Your task to perform on an android device: allow notifications from all sites in the chrome app Image 0: 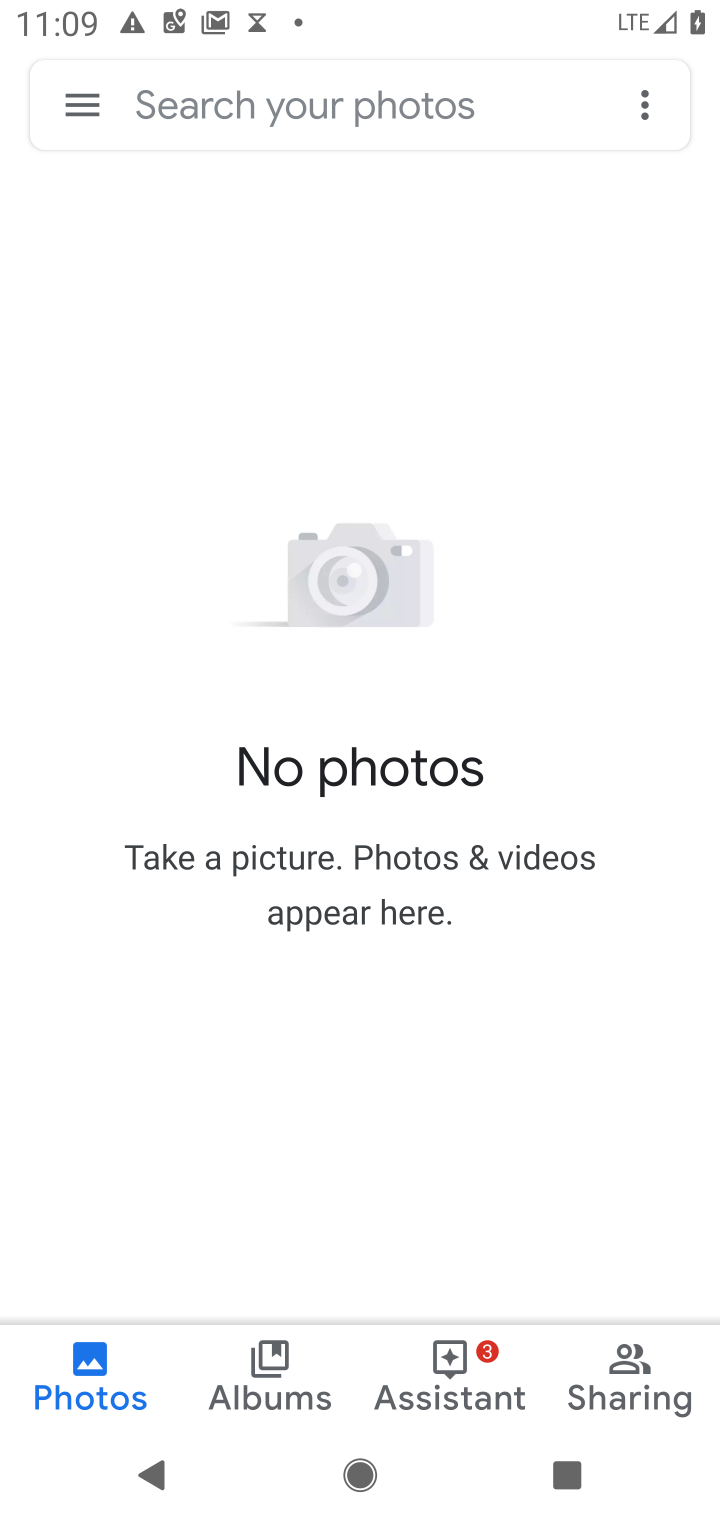
Step 0: press home button
Your task to perform on an android device: allow notifications from all sites in the chrome app Image 1: 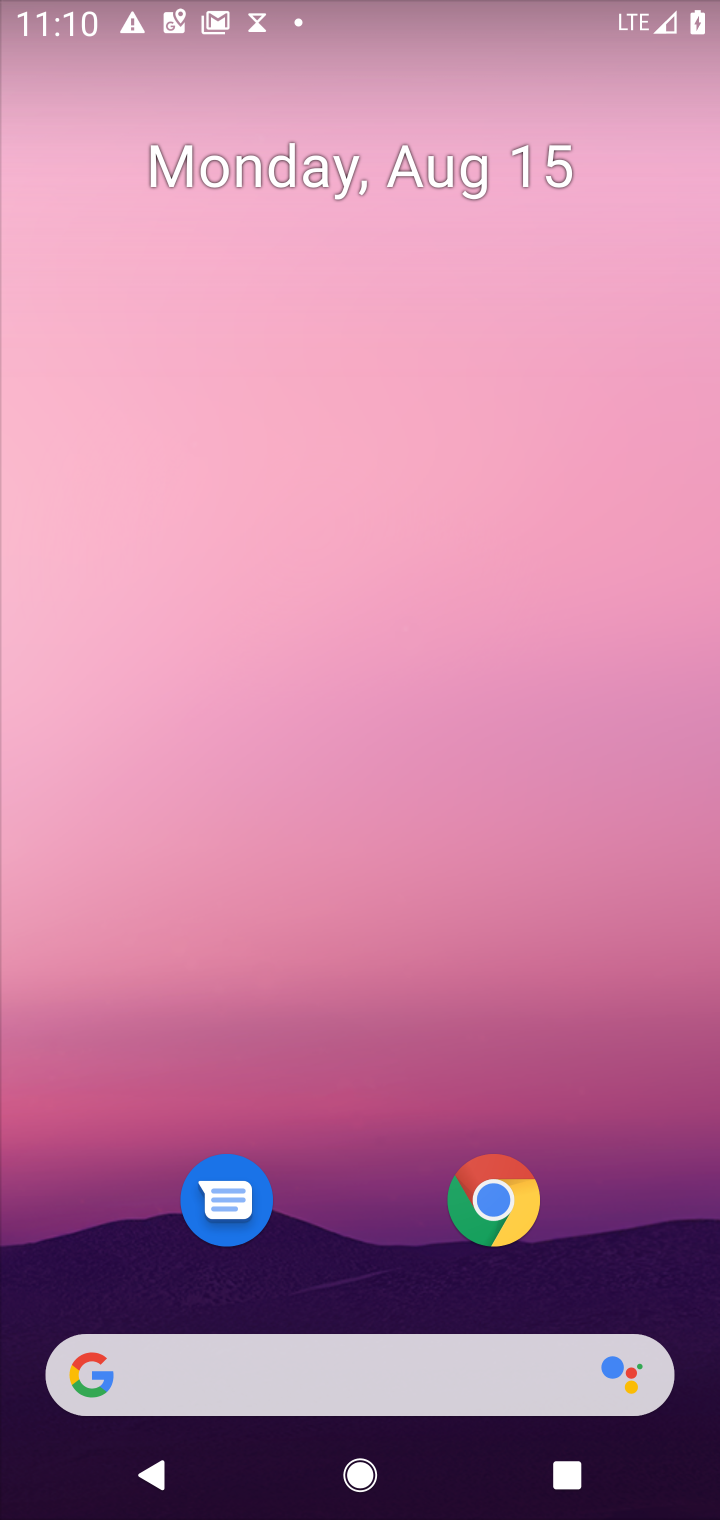
Step 1: click (460, 1194)
Your task to perform on an android device: allow notifications from all sites in the chrome app Image 2: 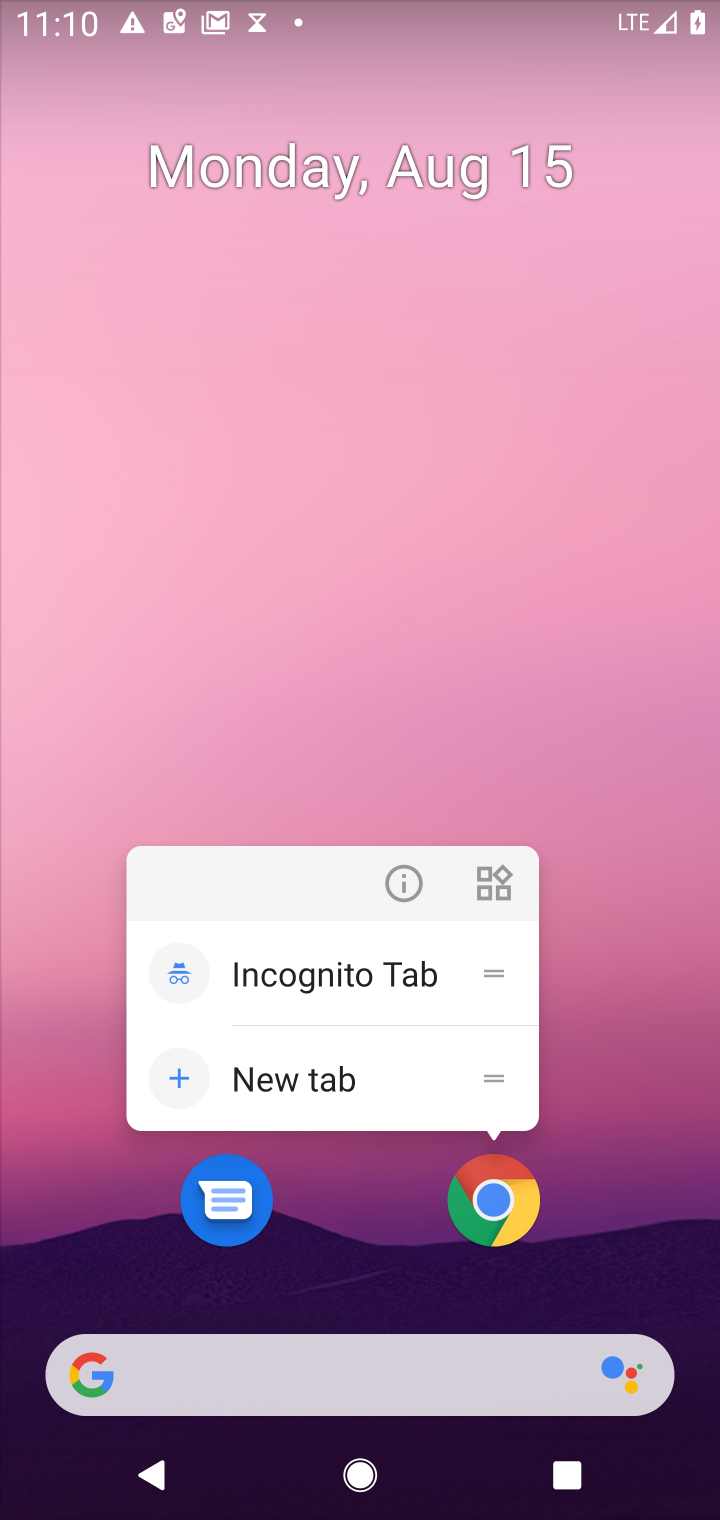
Step 2: click (460, 1194)
Your task to perform on an android device: allow notifications from all sites in the chrome app Image 3: 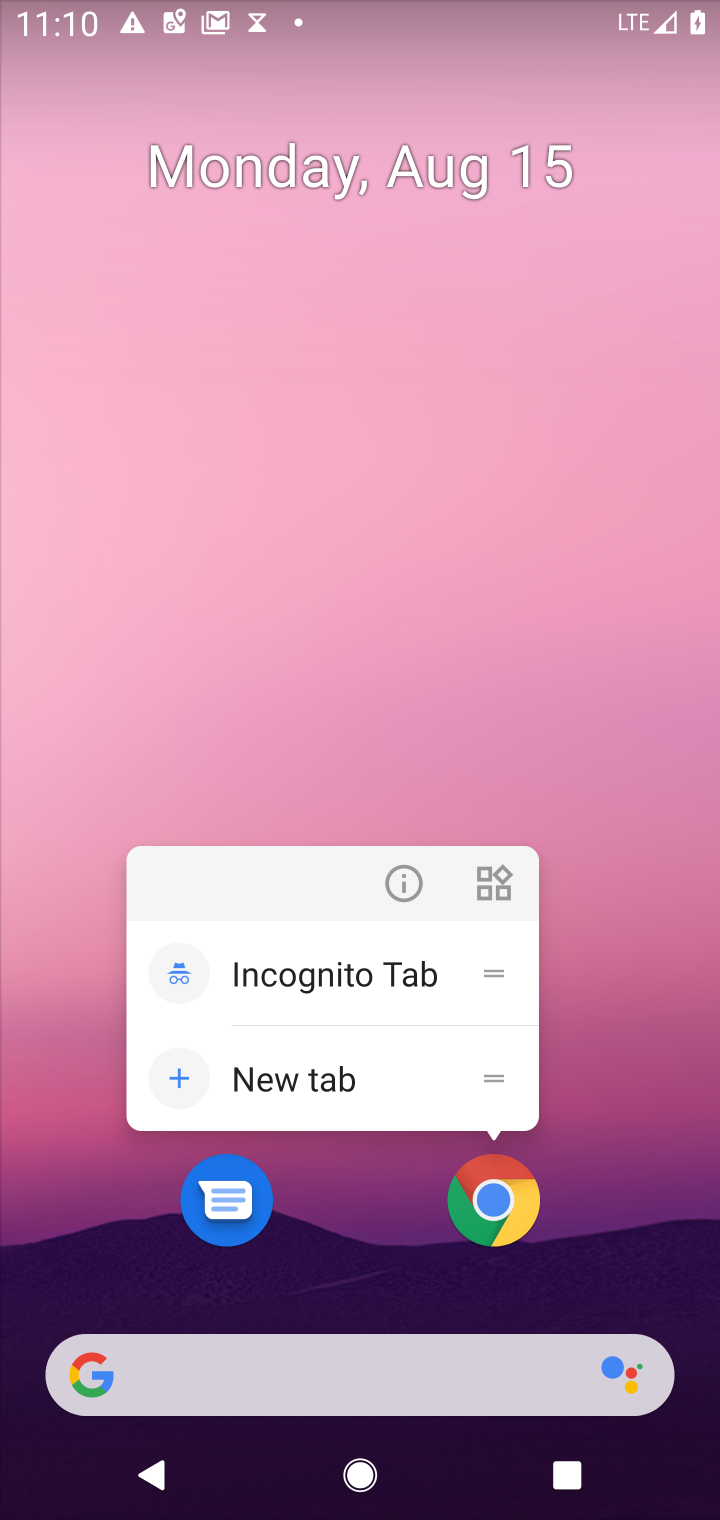
Step 3: click (486, 1215)
Your task to perform on an android device: allow notifications from all sites in the chrome app Image 4: 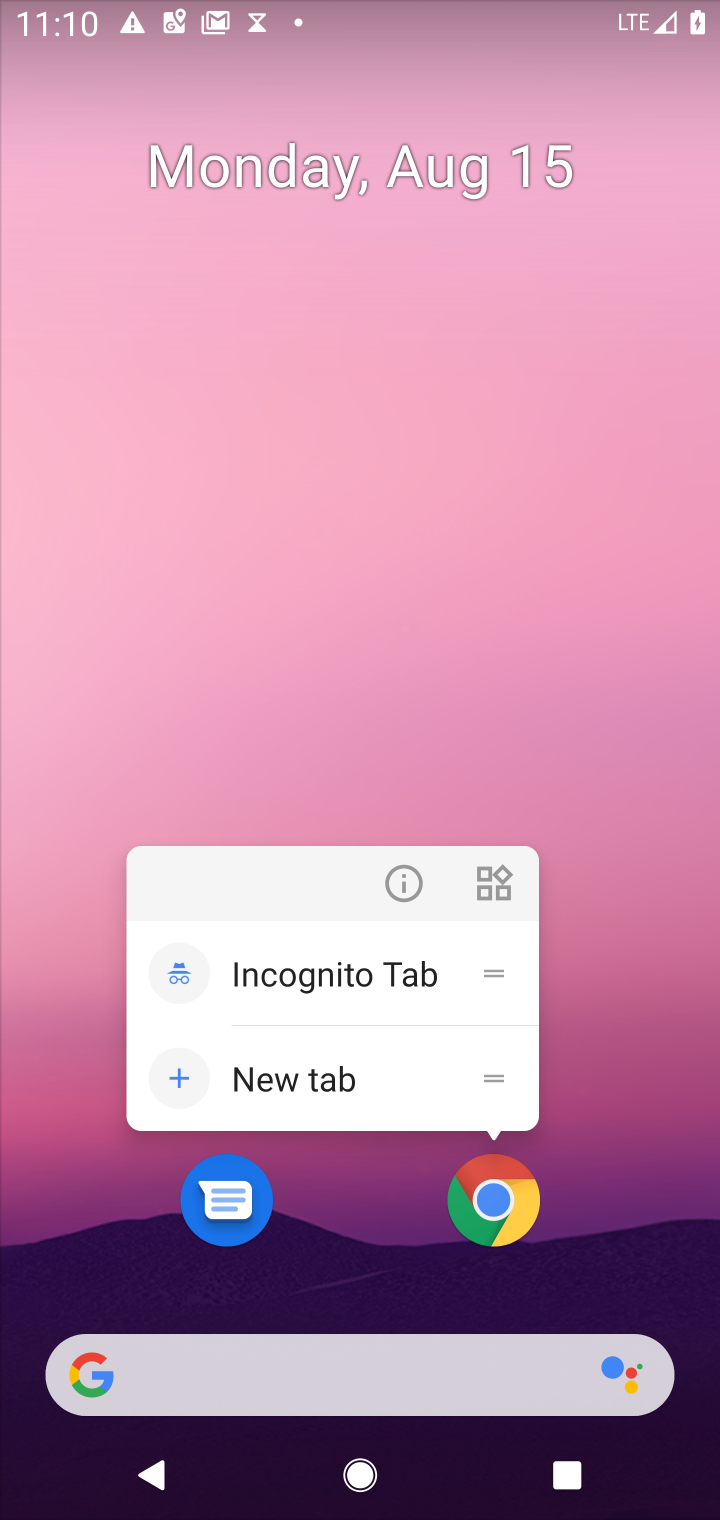
Step 4: click (486, 1215)
Your task to perform on an android device: allow notifications from all sites in the chrome app Image 5: 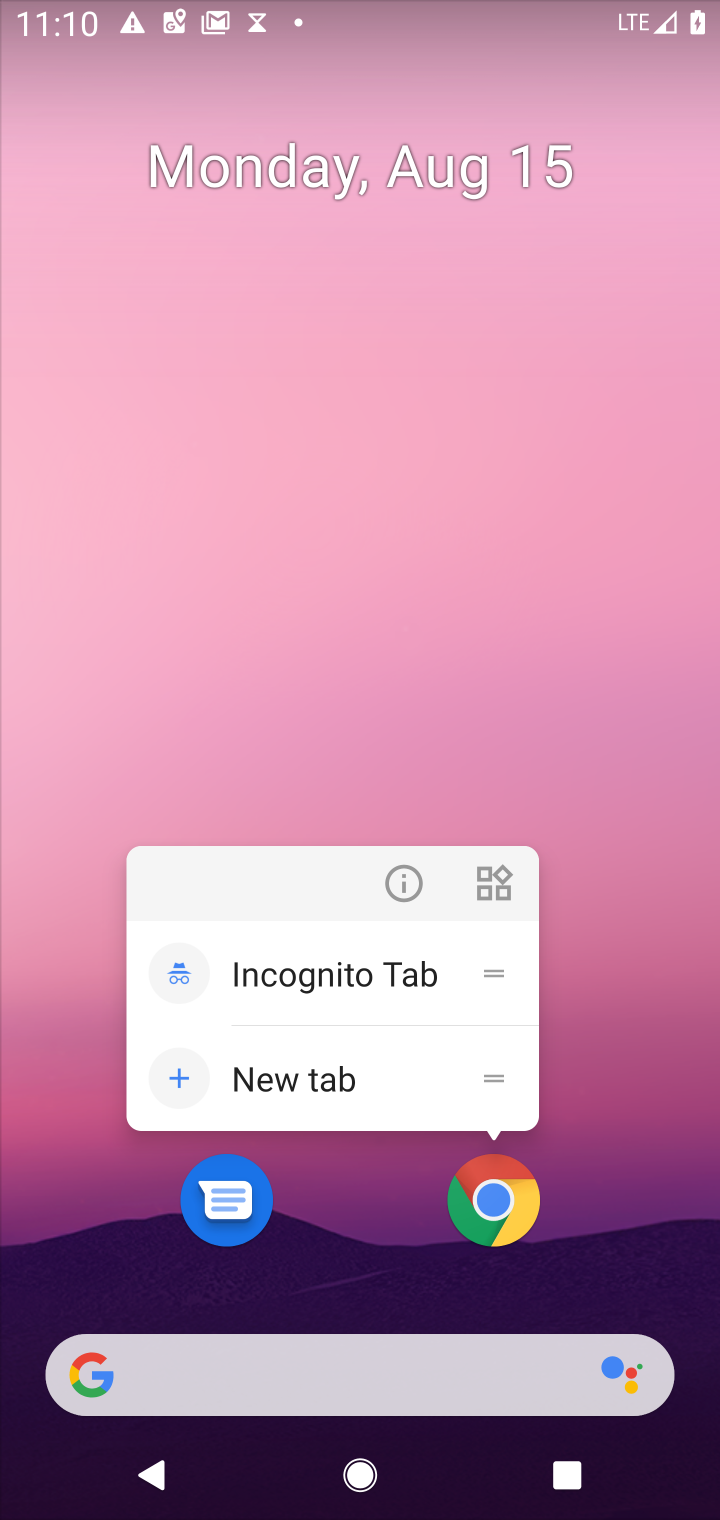
Step 5: click (486, 1215)
Your task to perform on an android device: allow notifications from all sites in the chrome app Image 6: 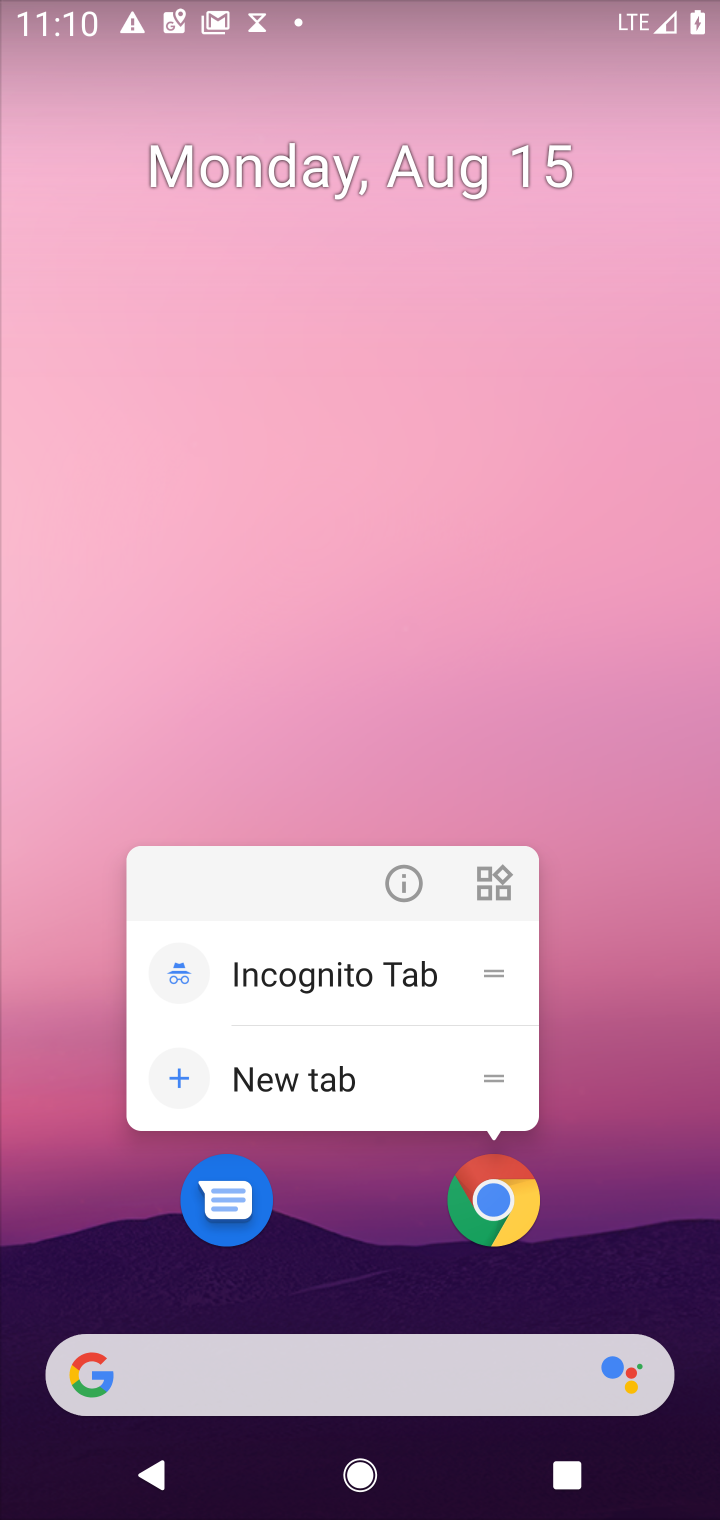
Step 6: click (504, 1215)
Your task to perform on an android device: allow notifications from all sites in the chrome app Image 7: 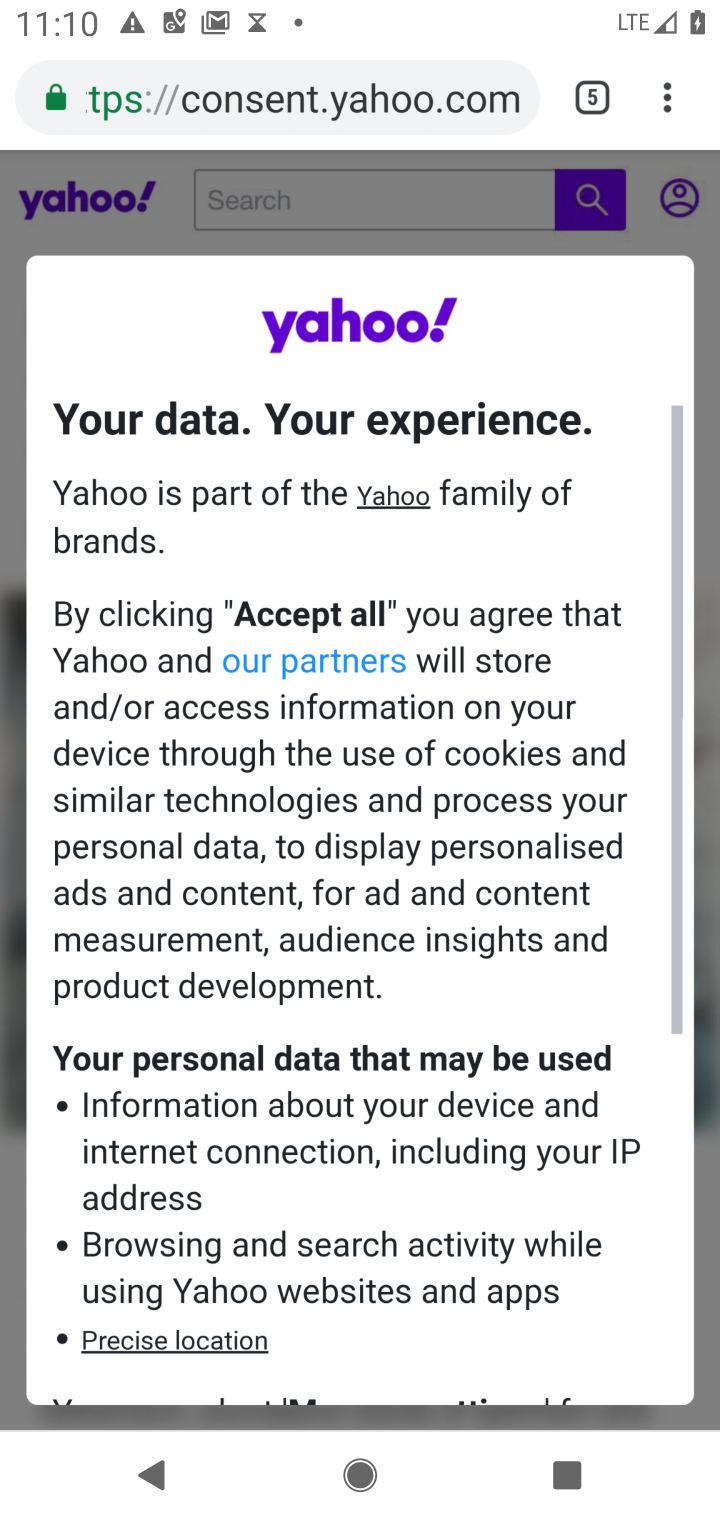
Step 7: click (675, 103)
Your task to perform on an android device: allow notifications from all sites in the chrome app Image 8: 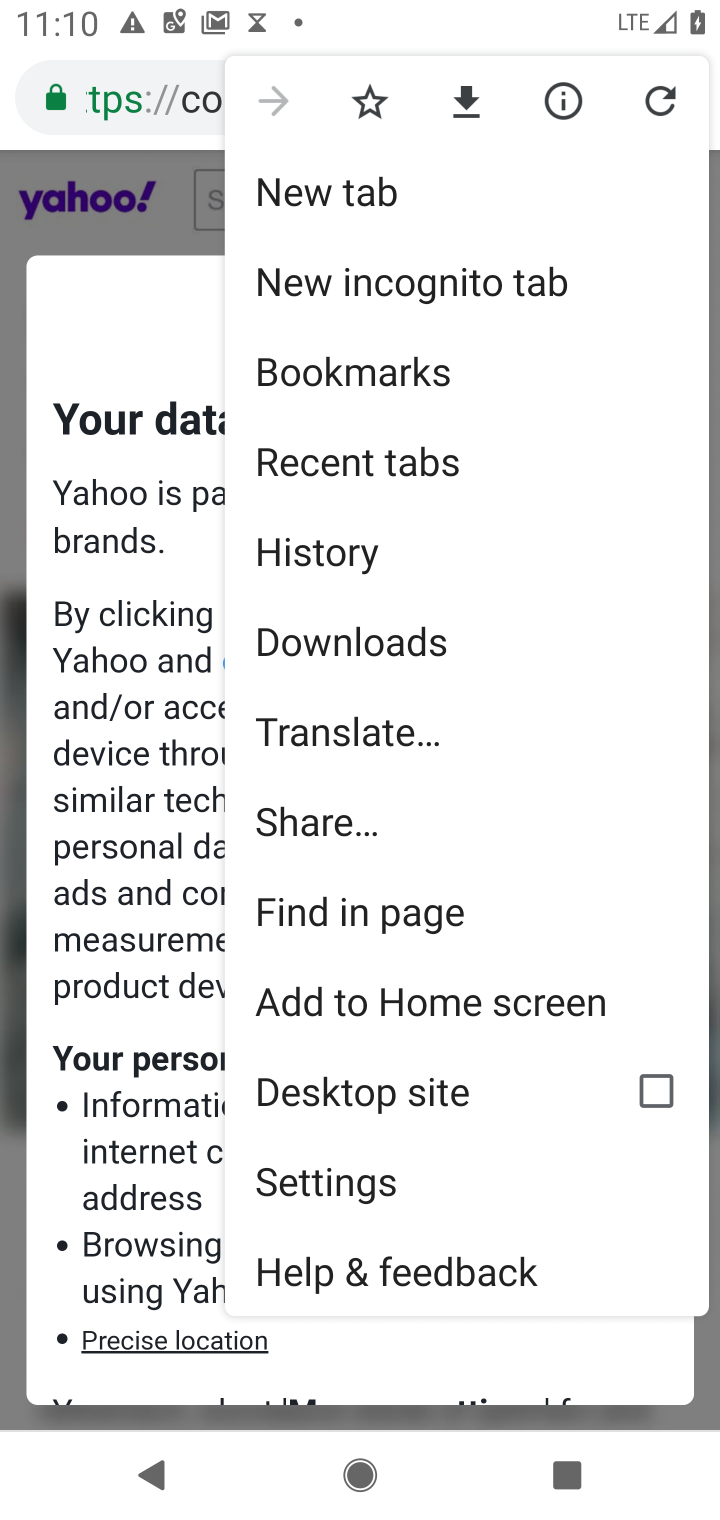
Step 8: click (347, 1175)
Your task to perform on an android device: allow notifications from all sites in the chrome app Image 9: 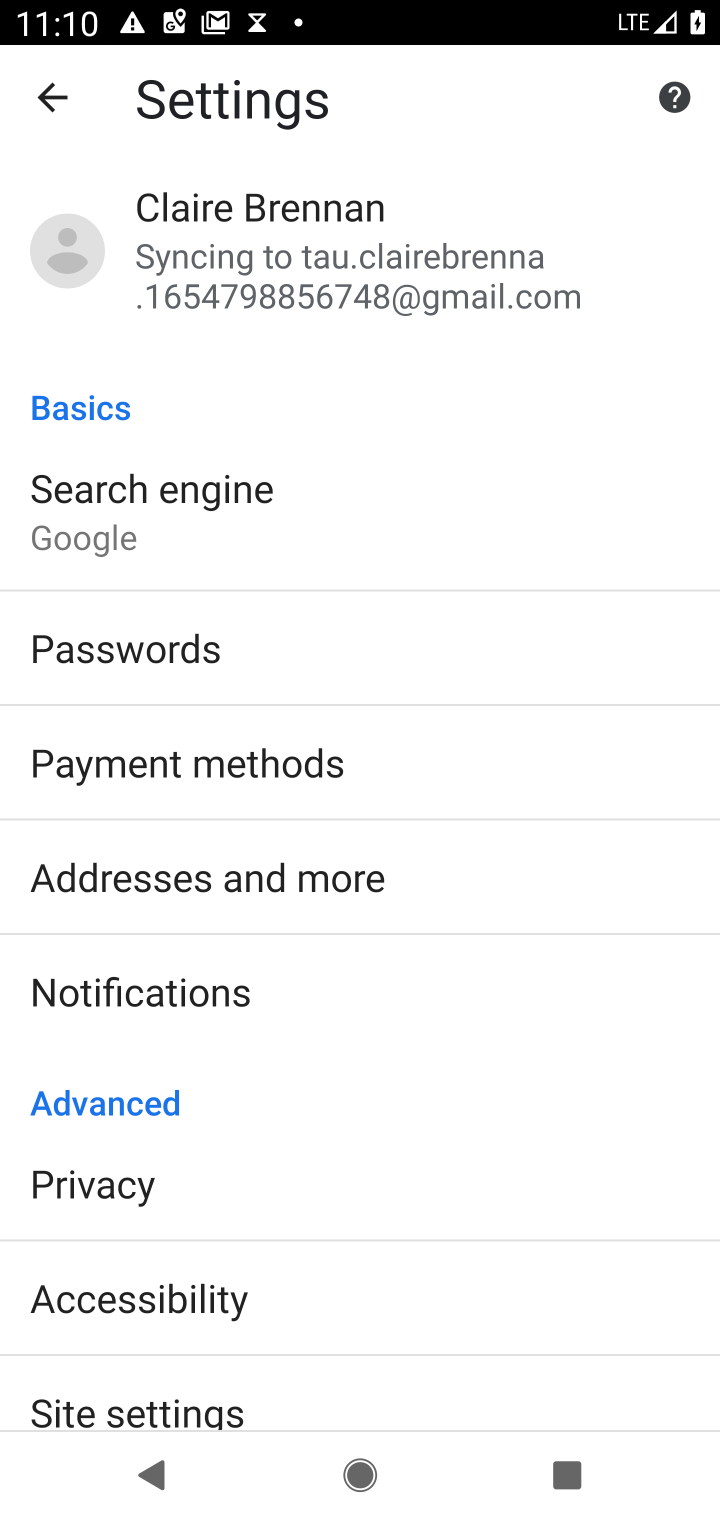
Step 9: drag from (318, 1300) to (357, 610)
Your task to perform on an android device: allow notifications from all sites in the chrome app Image 10: 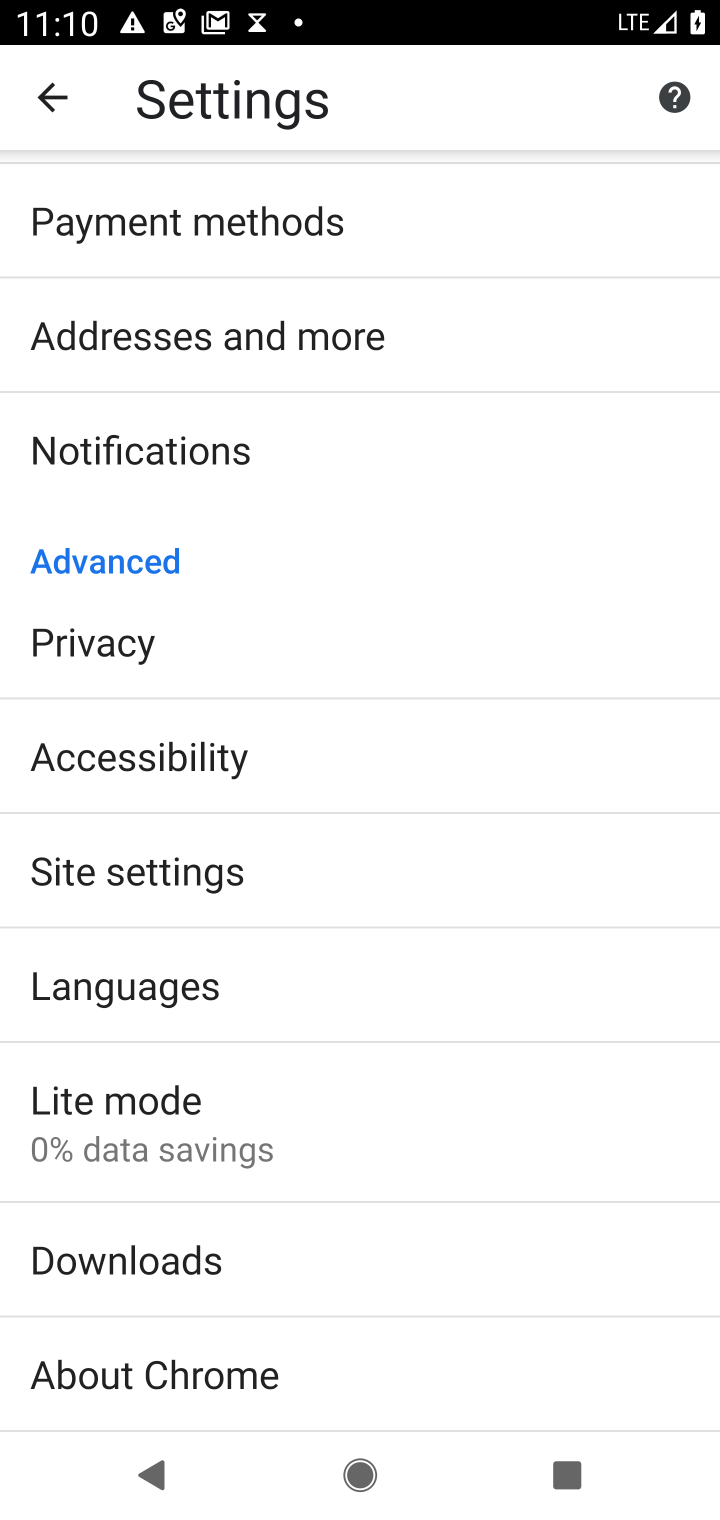
Step 10: click (213, 877)
Your task to perform on an android device: allow notifications from all sites in the chrome app Image 11: 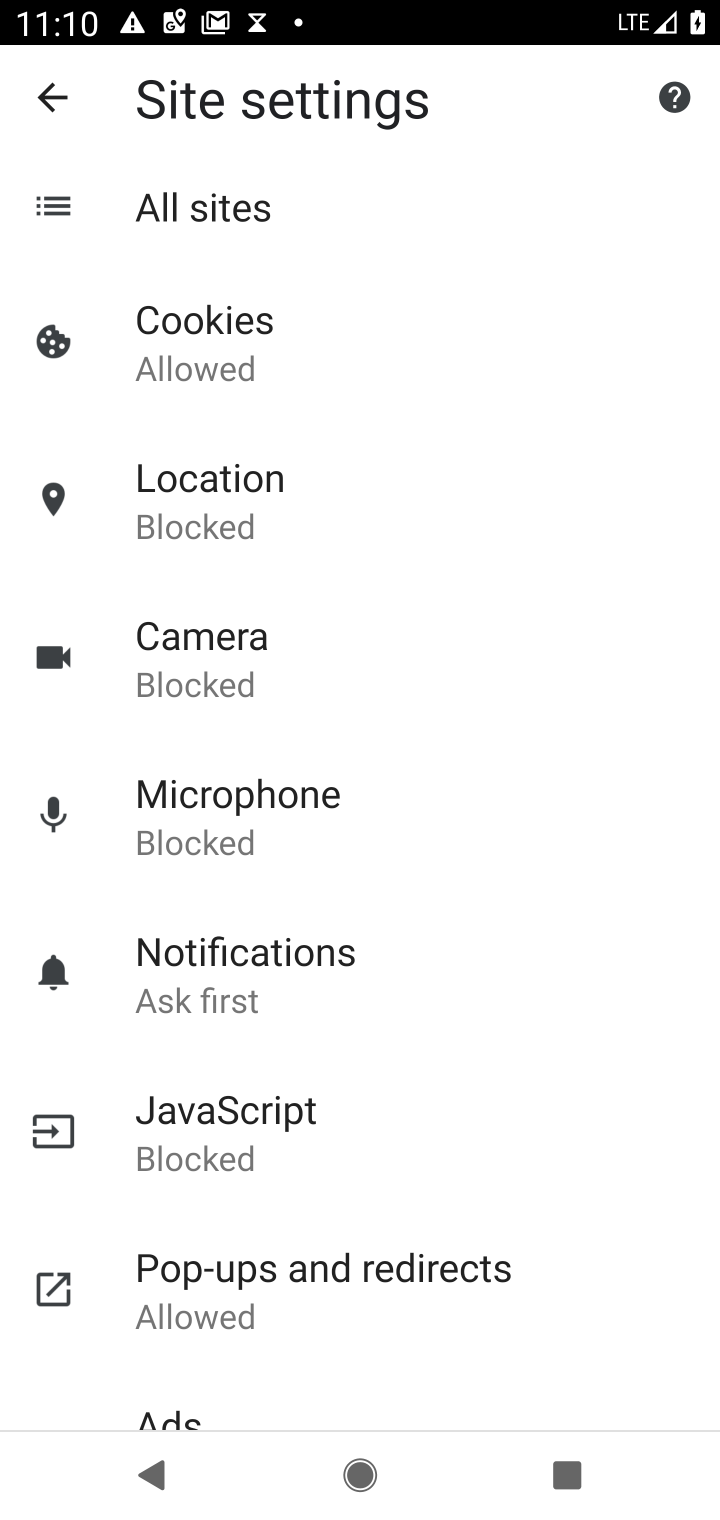
Step 11: click (257, 221)
Your task to perform on an android device: allow notifications from all sites in the chrome app Image 12: 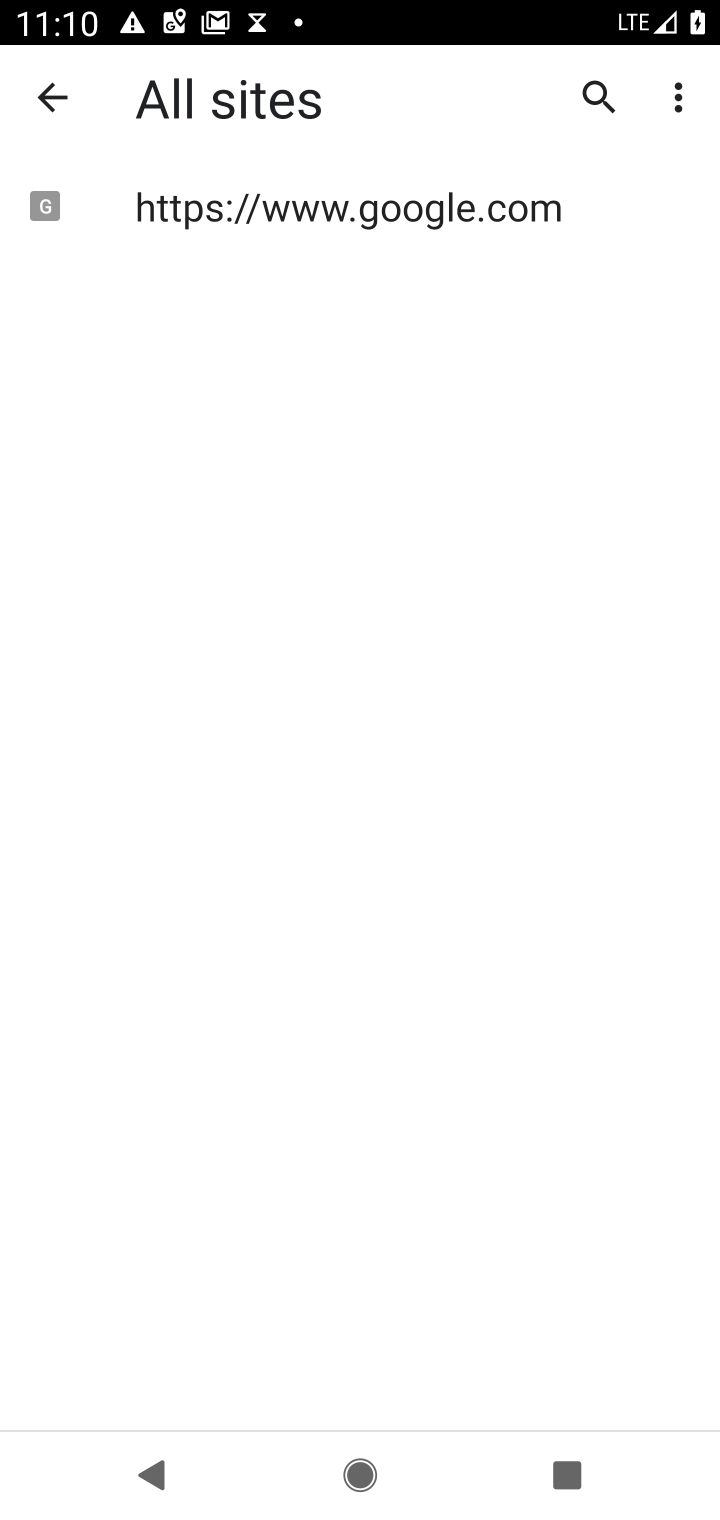
Step 12: click (377, 231)
Your task to perform on an android device: allow notifications from all sites in the chrome app Image 13: 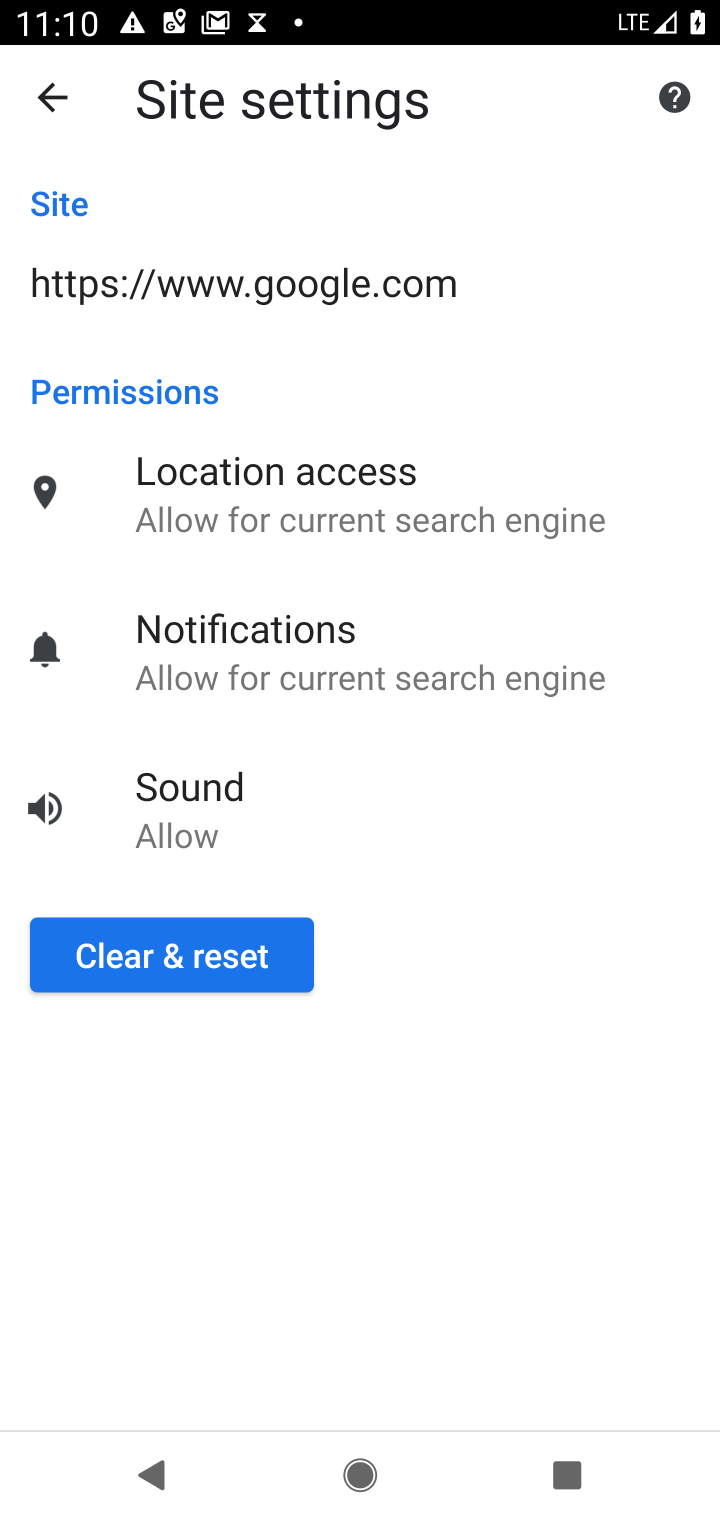
Step 13: click (376, 669)
Your task to perform on an android device: allow notifications from all sites in the chrome app Image 14: 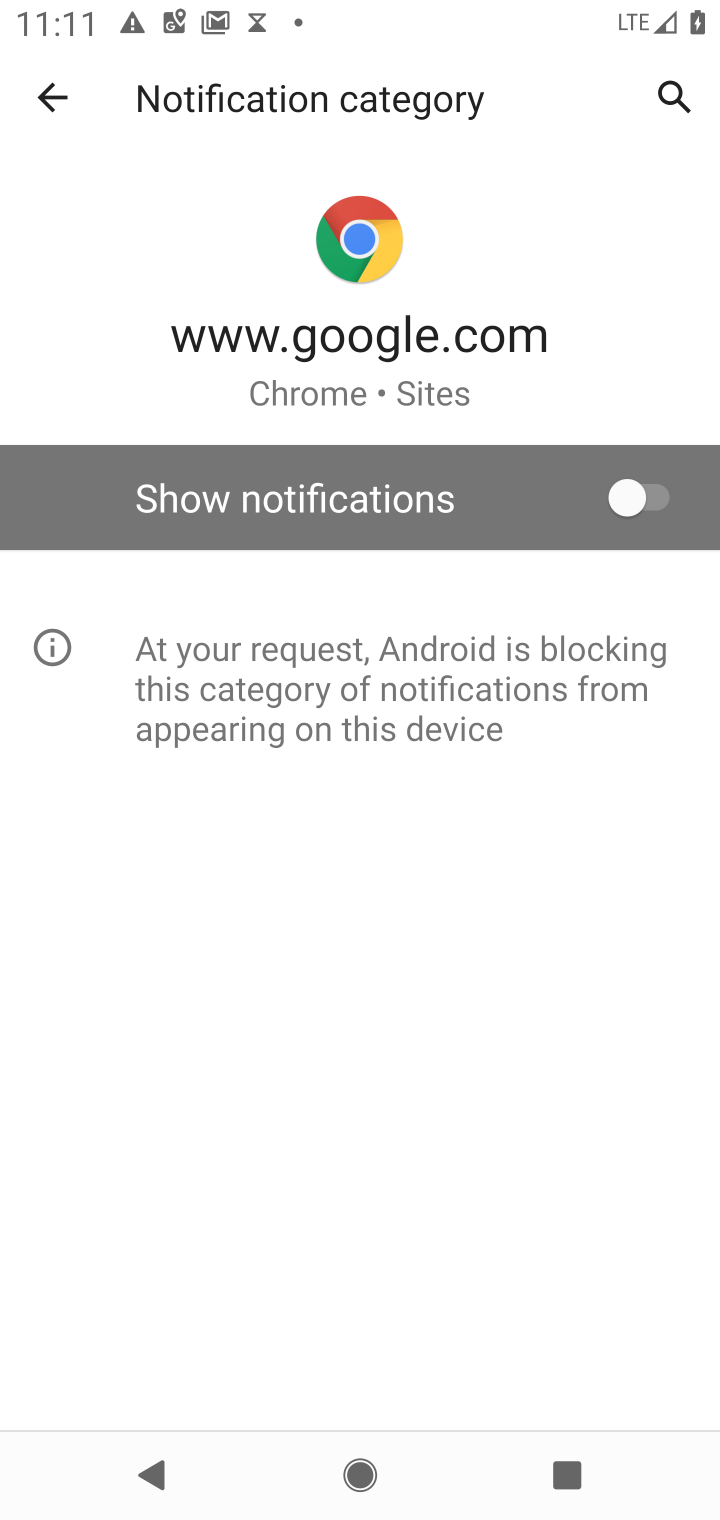
Step 14: click (661, 496)
Your task to perform on an android device: allow notifications from all sites in the chrome app Image 15: 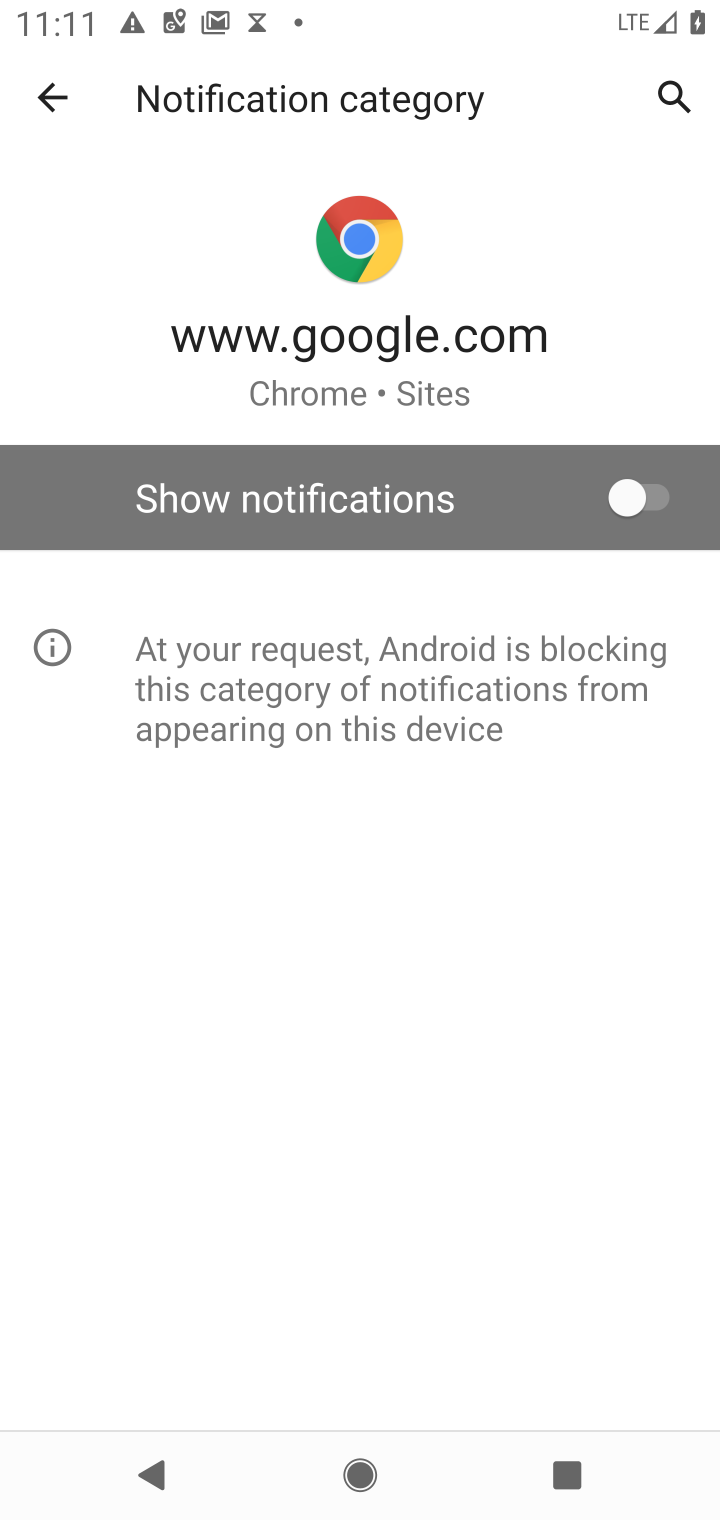
Step 15: task complete